Your task to perform on an android device: Find coffee shops on Maps Image 0: 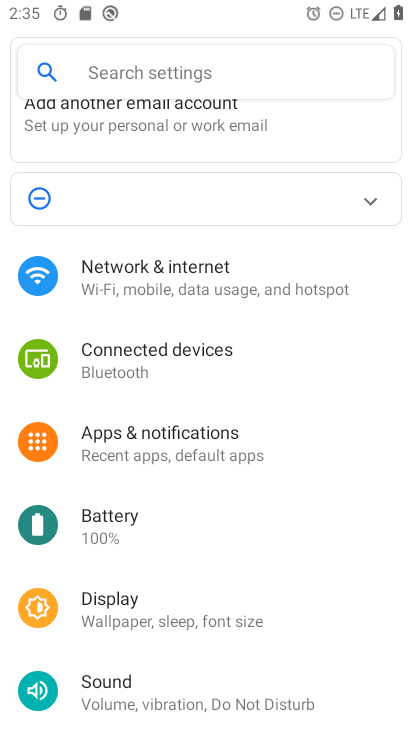
Step 0: press home button
Your task to perform on an android device: Find coffee shops on Maps Image 1: 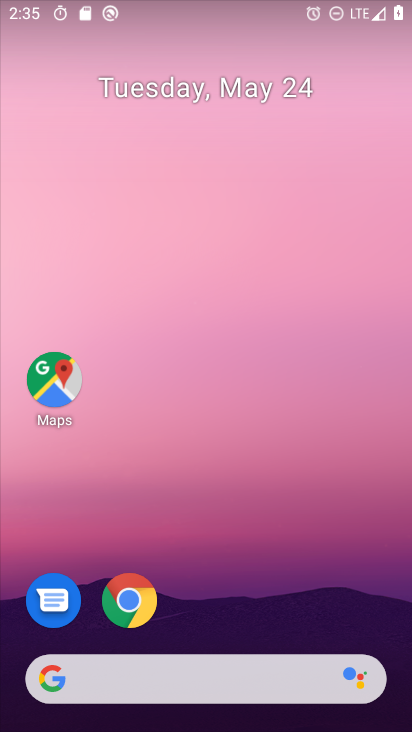
Step 1: click (51, 382)
Your task to perform on an android device: Find coffee shops on Maps Image 2: 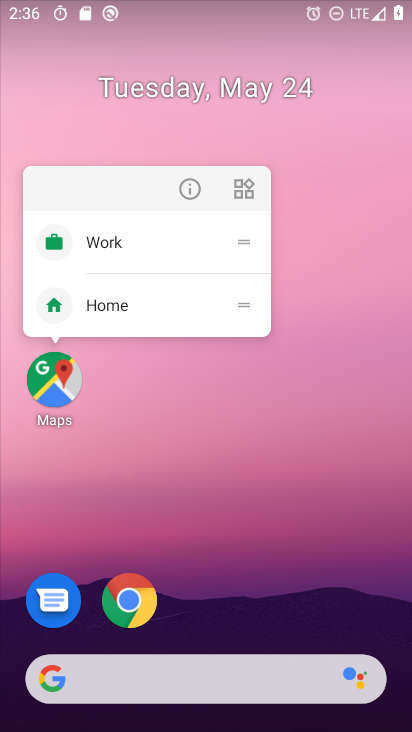
Step 2: click (50, 381)
Your task to perform on an android device: Find coffee shops on Maps Image 3: 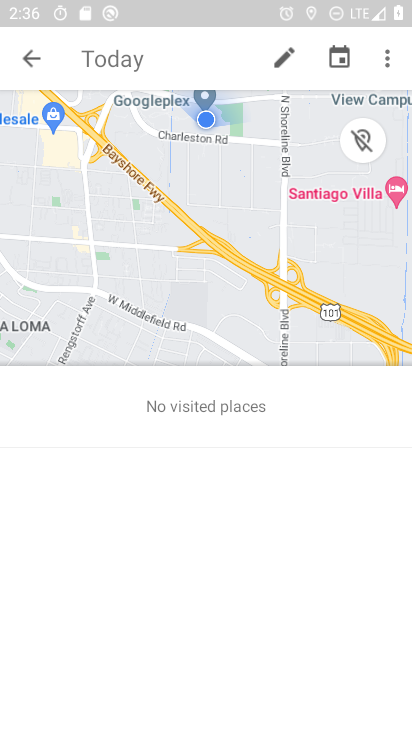
Step 3: click (26, 64)
Your task to perform on an android device: Find coffee shops on Maps Image 4: 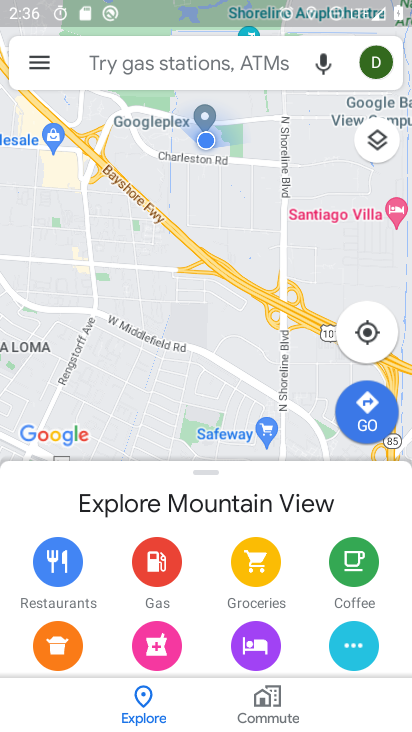
Step 4: click (198, 61)
Your task to perform on an android device: Find coffee shops on Maps Image 5: 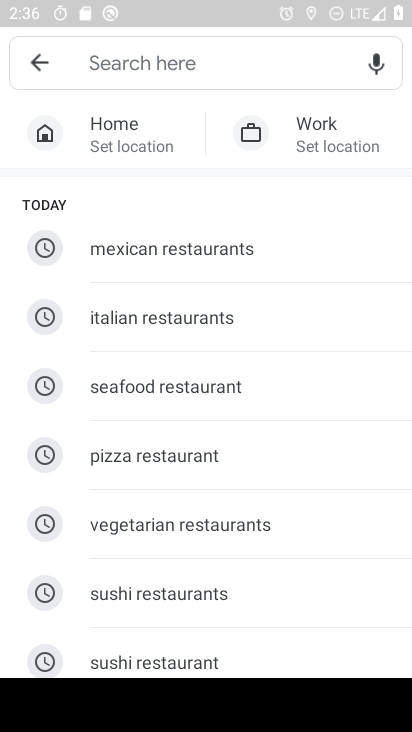
Step 5: type "coffee shps"
Your task to perform on an android device: Find coffee shops on Maps Image 6: 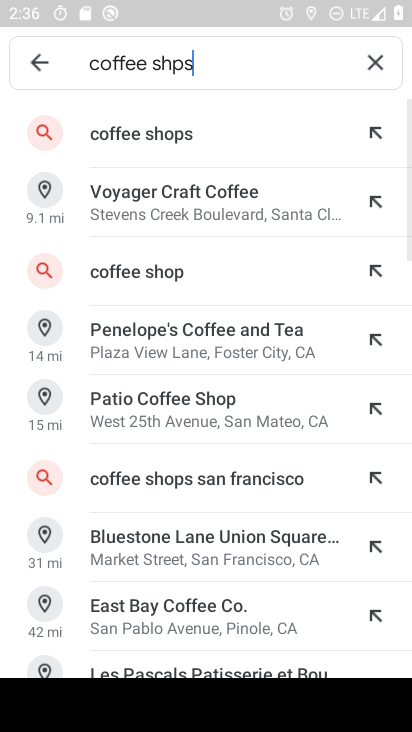
Step 6: click (192, 124)
Your task to perform on an android device: Find coffee shops on Maps Image 7: 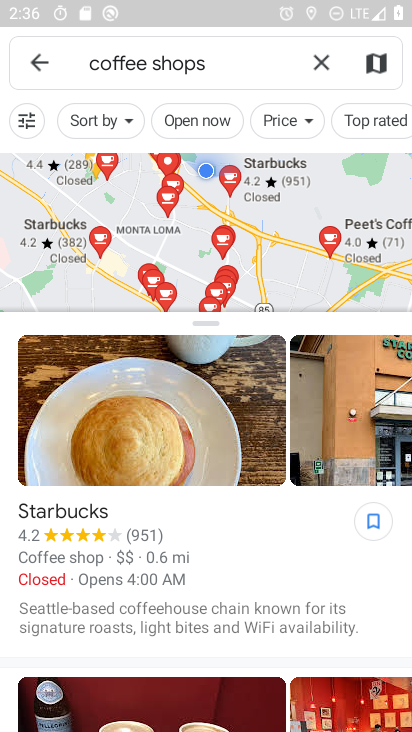
Step 7: task complete